Your task to perform on an android device: Open display settings Image 0: 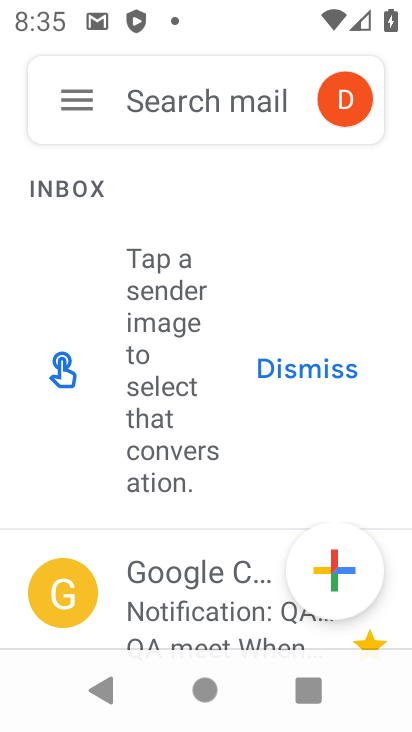
Step 0: press home button
Your task to perform on an android device: Open display settings Image 1: 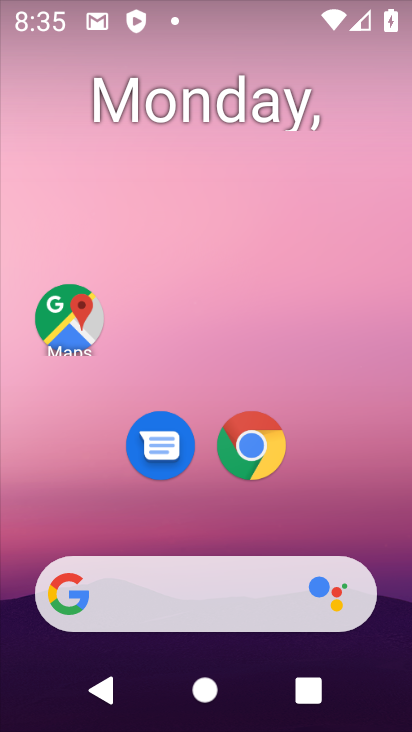
Step 1: drag from (148, 679) to (53, 0)
Your task to perform on an android device: Open display settings Image 2: 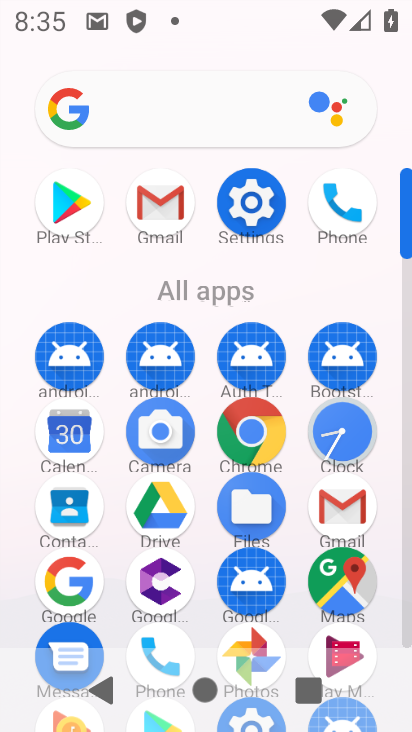
Step 2: click (260, 205)
Your task to perform on an android device: Open display settings Image 3: 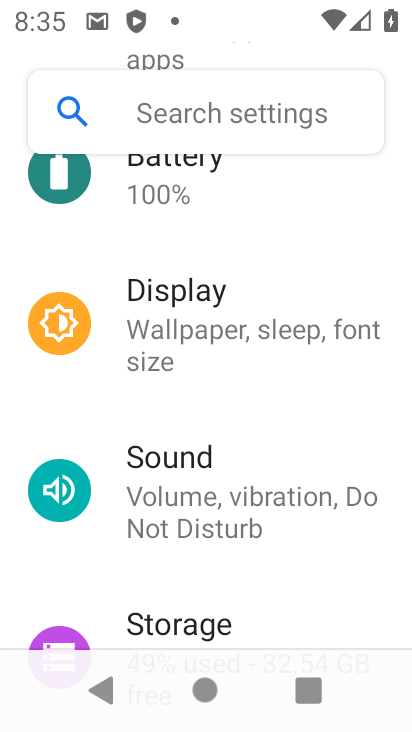
Step 3: click (215, 338)
Your task to perform on an android device: Open display settings Image 4: 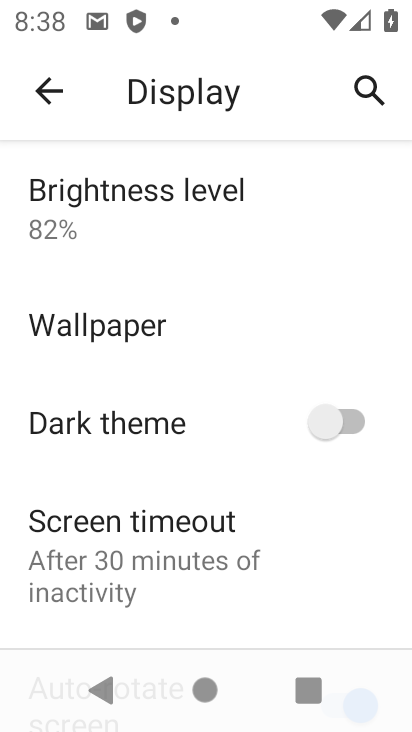
Step 4: task complete